Your task to perform on an android device: Turn off the flashlight Image 0: 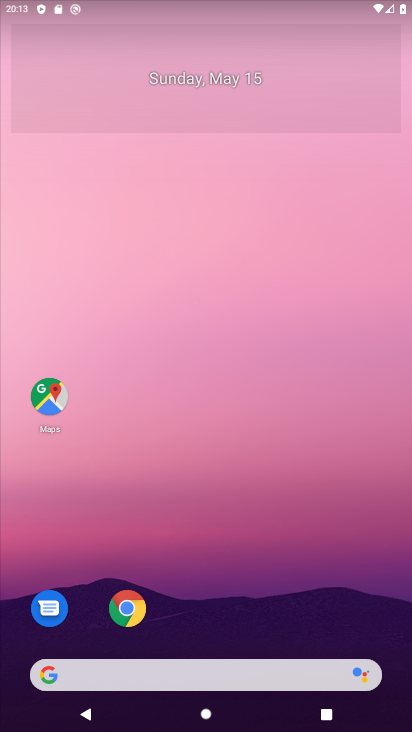
Step 0: drag from (239, 634) to (302, 82)
Your task to perform on an android device: Turn off the flashlight Image 1: 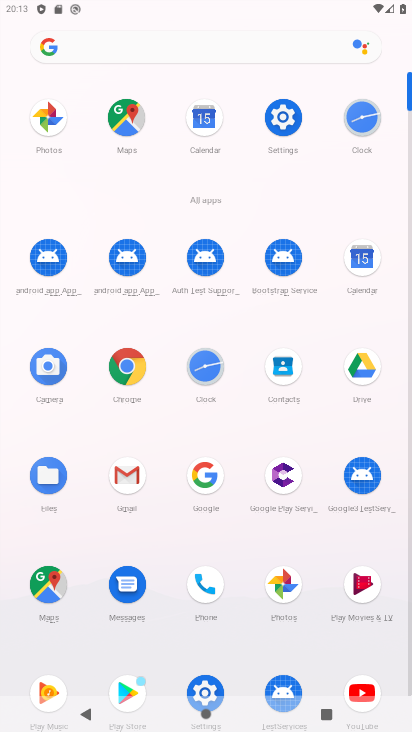
Step 1: click (279, 111)
Your task to perform on an android device: Turn off the flashlight Image 2: 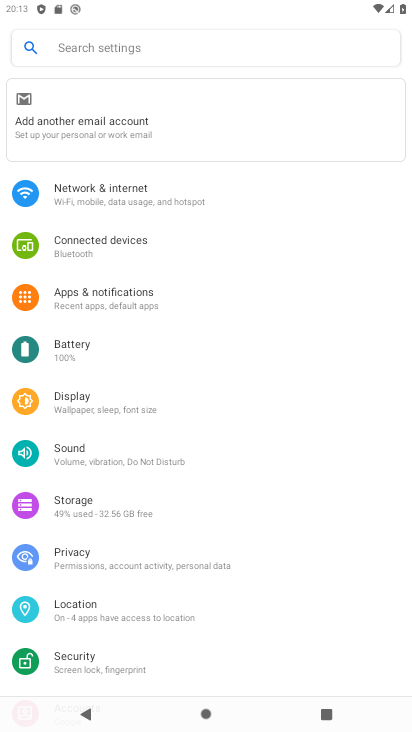
Step 2: click (107, 41)
Your task to perform on an android device: Turn off the flashlight Image 3: 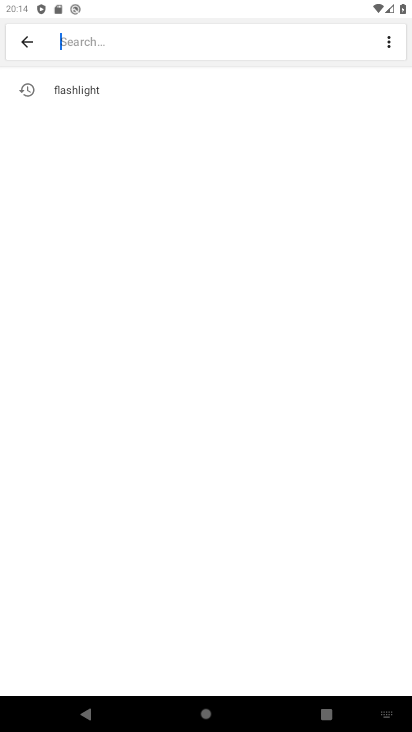
Step 3: type "flashlight"
Your task to perform on an android device: Turn off the flashlight Image 4: 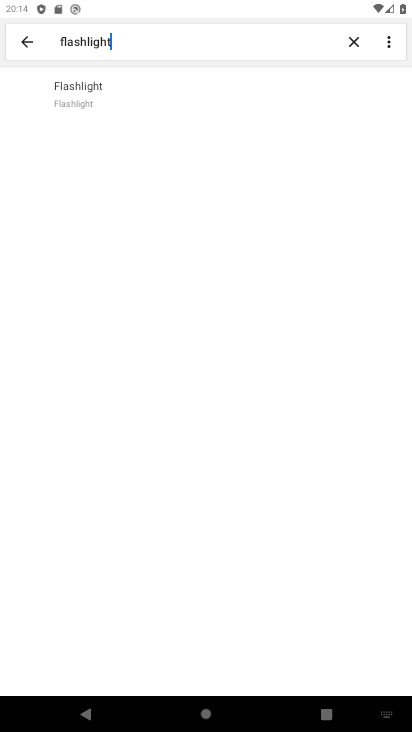
Step 4: click (68, 93)
Your task to perform on an android device: Turn off the flashlight Image 5: 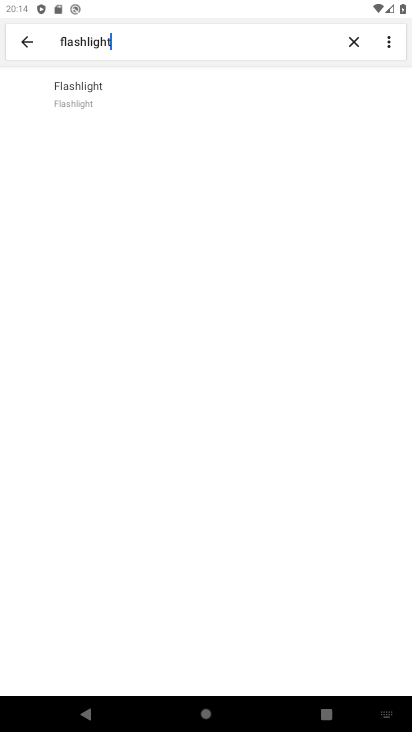
Step 5: task complete